Your task to perform on an android device: Go to Google Image 0: 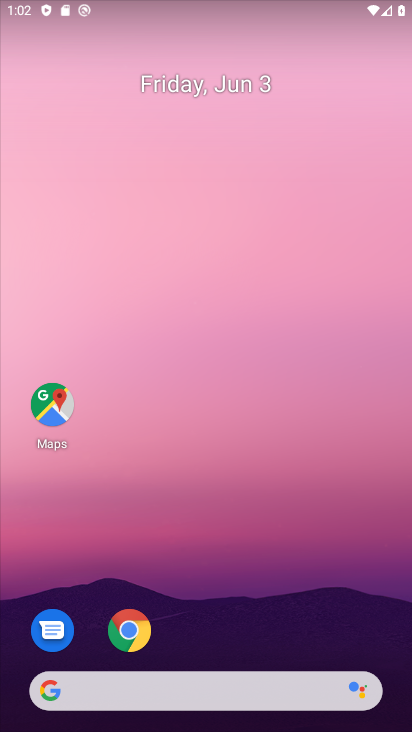
Step 0: drag from (200, 706) to (154, 157)
Your task to perform on an android device: Go to Google Image 1: 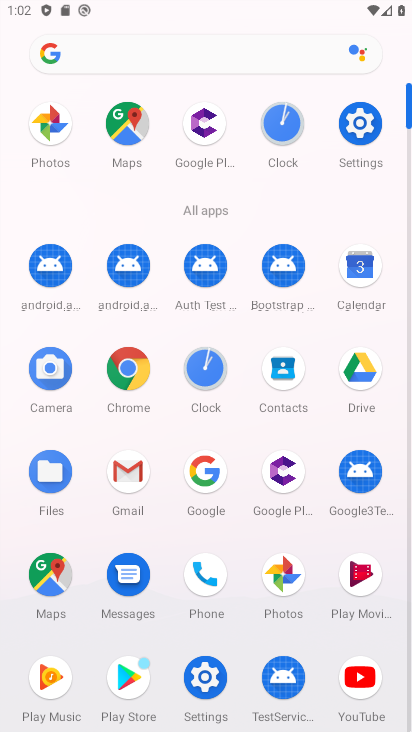
Step 1: click (210, 474)
Your task to perform on an android device: Go to Google Image 2: 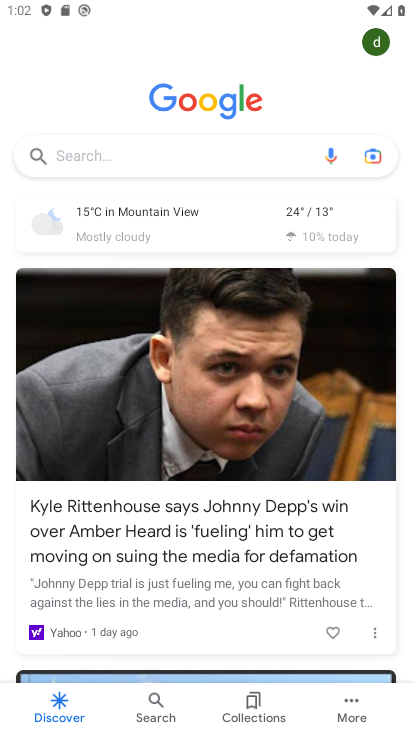
Step 2: task complete